Your task to perform on an android device: turn off picture-in-picture Image 0: 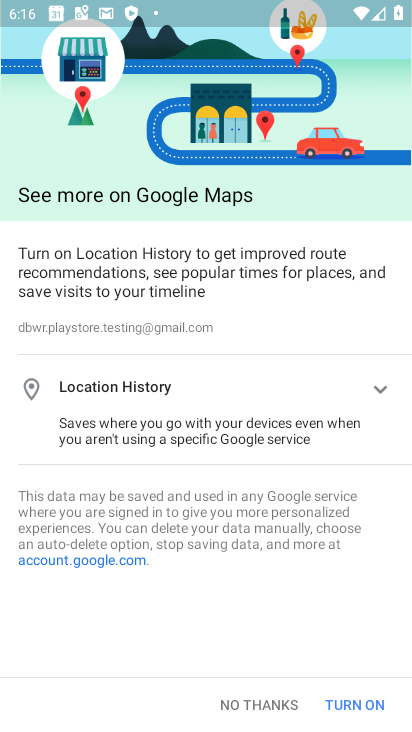
Step 0: press home button
Your task to perform on an android device: turn off picture-in-picture Image 1: 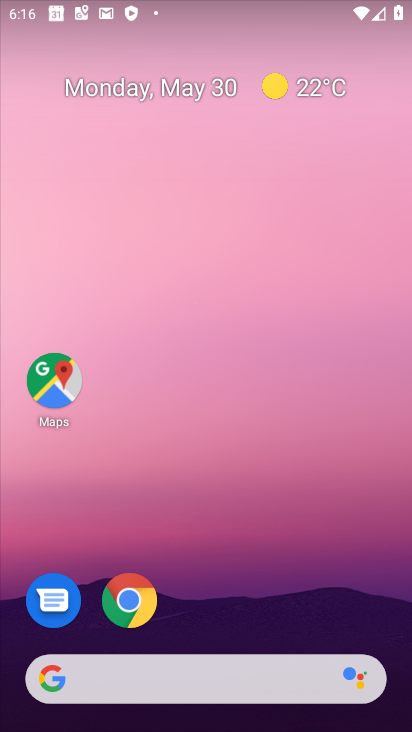
Step 1: click (128, 601)
Your task to perform on an android device: turn off picture-in-picture Image 2: 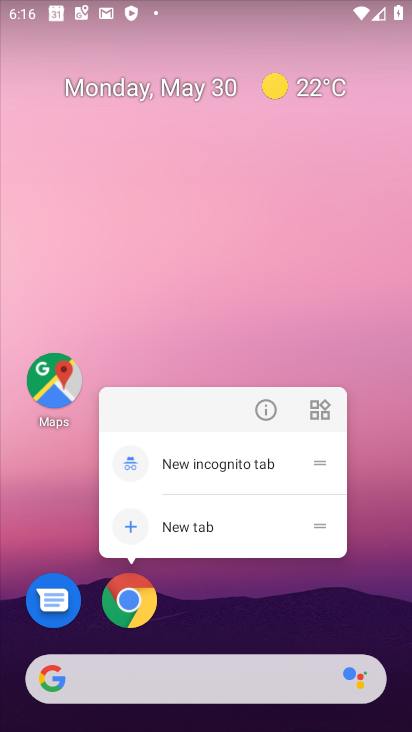
Step 2: click (272, 407)
Your task to perform on an android device: turn off picture-in-picture Image 3: 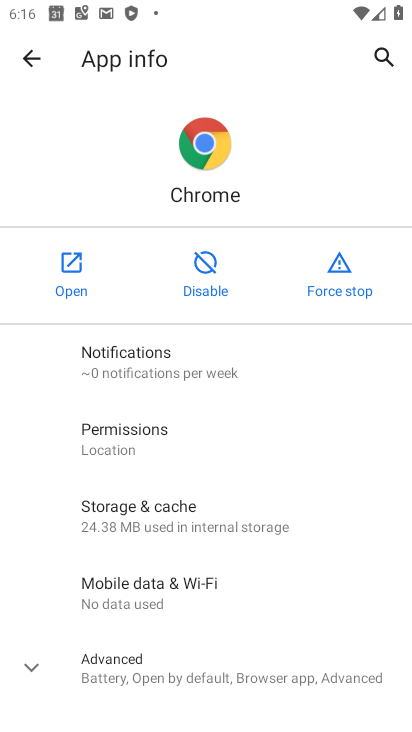
Step 3: click (98, 674)
Your task to perform on an android device: turn off picture-in-picture Image 4: 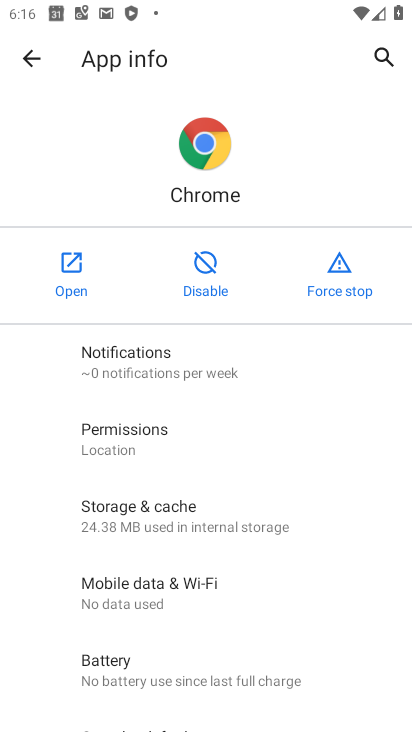
Step 4: drag from (321, 628) to (366, 334)
Your task to perform on an android device: turn off picture-in-picture Image 5: 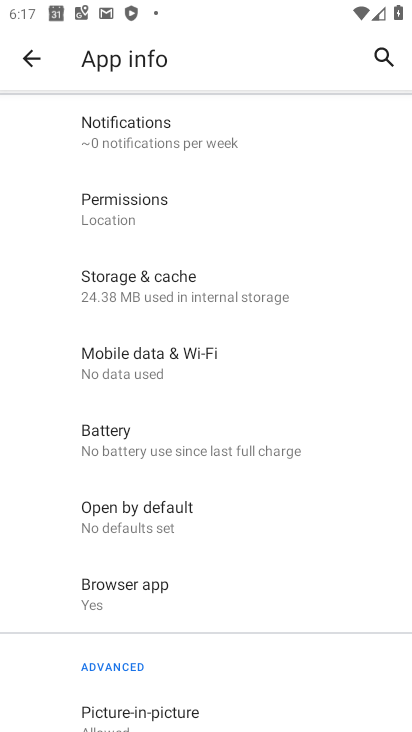
Step 5: drag from (291, 579) to (332, 298)
Your task to perform on an android device: turn off picture-in-picture Image 6: 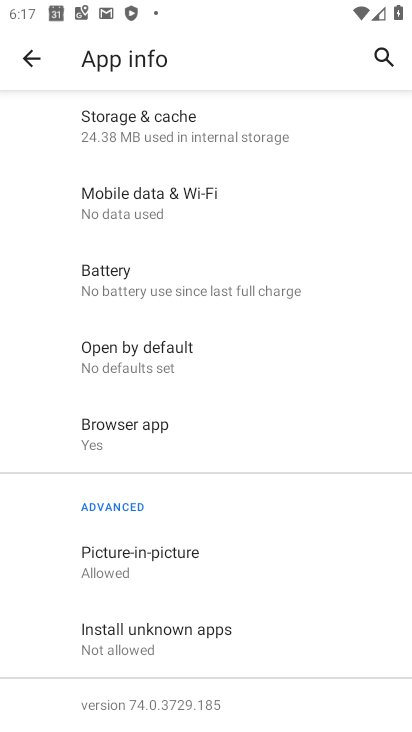
Step 6: click (119, 564)
Your task to perform on an android device: turn off picture-in-picture Image 7: 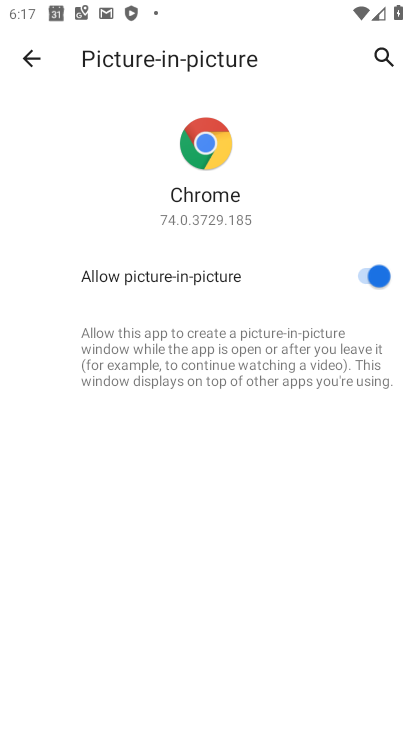
Step 7: click (382, 277)
Your task to perform on an android device: turn off picture-in-picture Image 8: 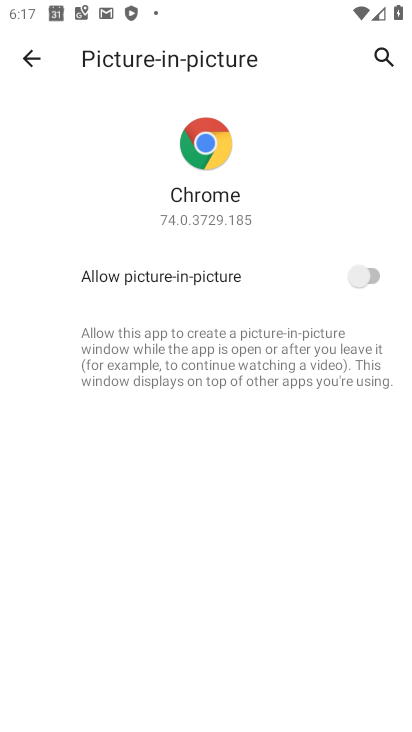
Step 8: task complete